Your task to perform on an android device: toggle notifications settings in the gmail app Image 0: 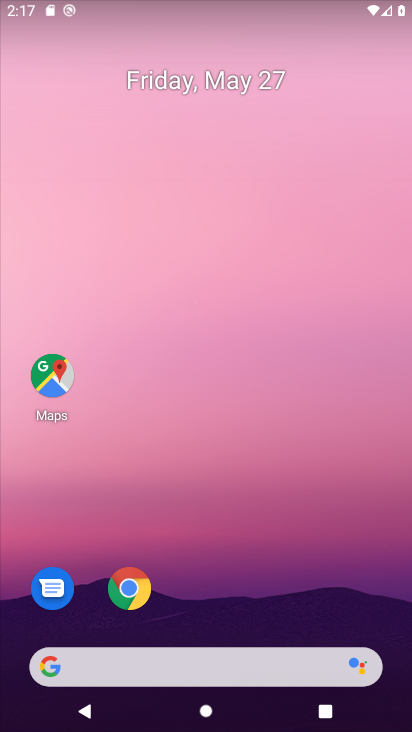
Step 0: click (137, 587)
Your task to perform on an android device: toggle notifications settings in the gmail app Image 1: 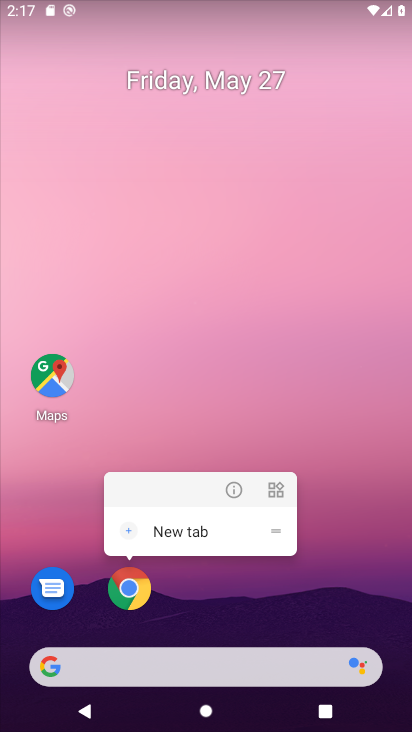
Step 1: click (137, 587)
Your task to perform on an android device: toggle notifications settings in the gmail app Image 2: 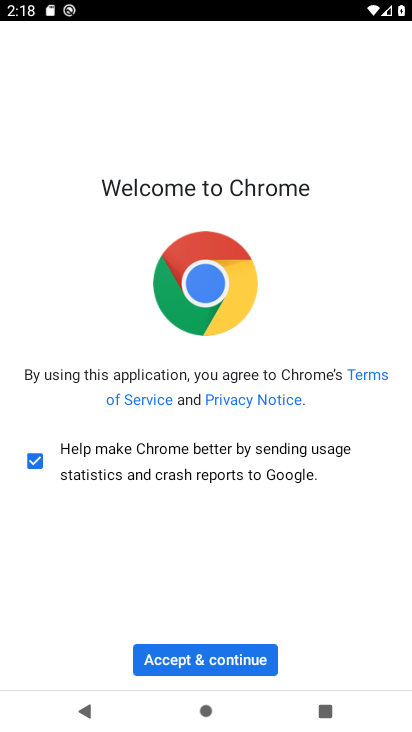
Step 2: click (182, 649)
Your task to perform on an android device: toggle notifications settings in the gmail app Image 3: 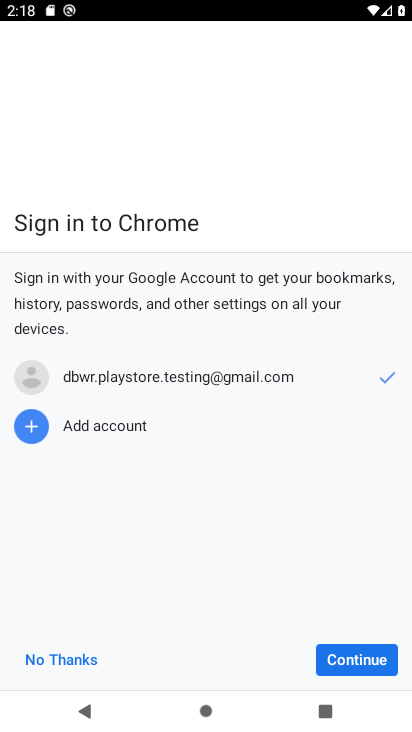
Step 3: click (365, 662)
Your task to perform on an android device: toggle notifications settings in the gmail app Image 4: 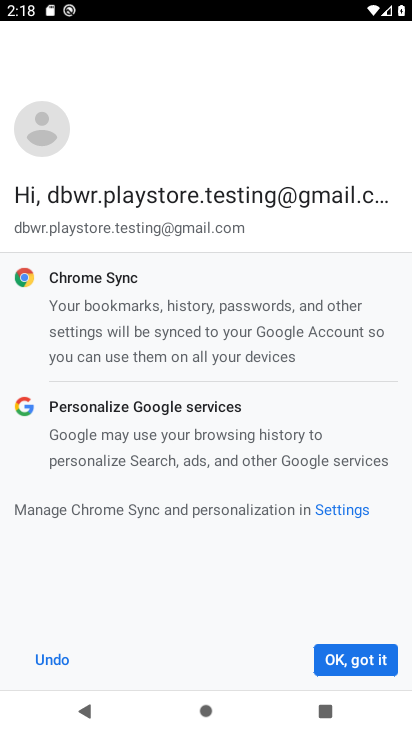
Step 4: click (354, 648)
Your task to perform on an android device: toggle notifications settings in the gmail app Image 5: 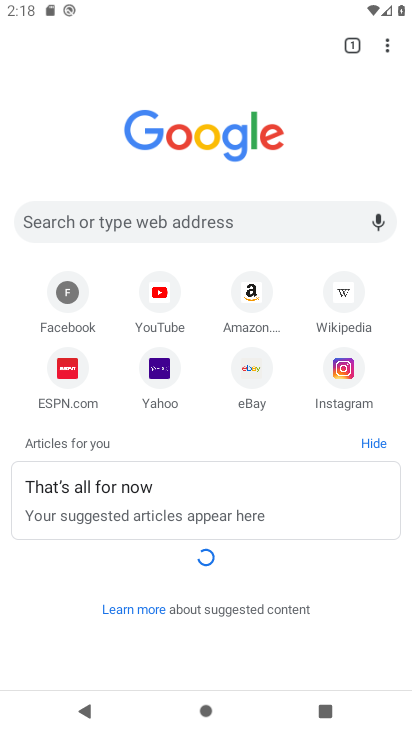
Step 5: click (392, 39)
Your task to perform on an android device: toggle notifications settings in the gmail app Image 6: 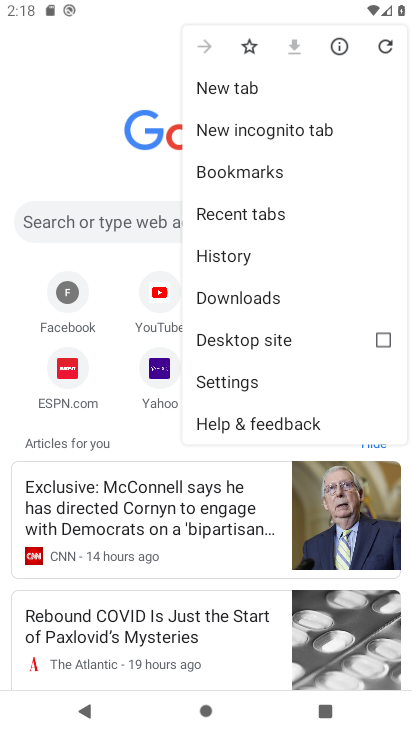
Step 6: click (249, 383)
Your task to perform on an android device: toggle notifications settings in the gmail app Image 7: 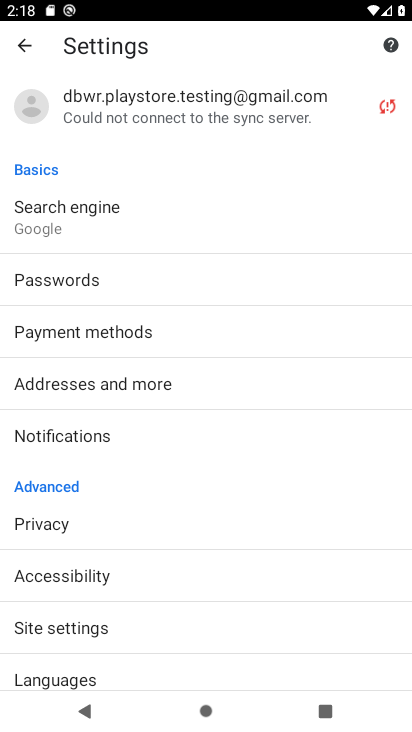
Step 7: click (74, 437)
Your task to perform on an android device: toggle notifications settings in the gmail app Image 8: 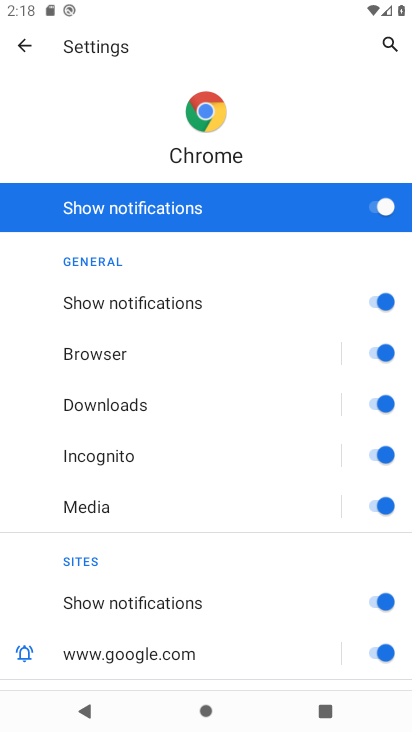
Step 8: click (386, 204)
Your task to perform on an android device: toggle notifications settings in the gmail app Image 9: 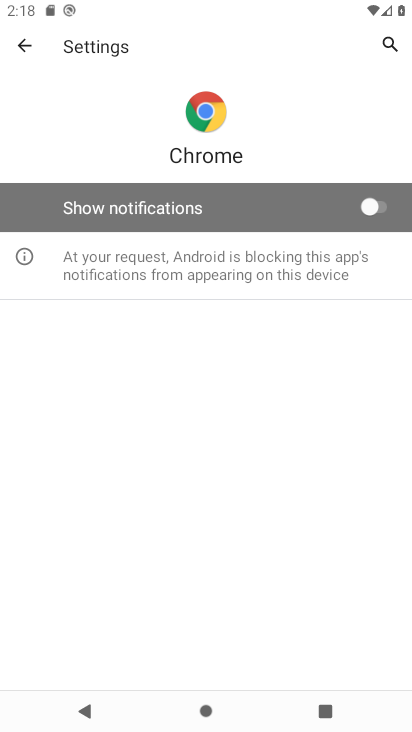
Step 9: task complete